Your task to perform on an android device: Play the last video I watched on Youtube Image 0: 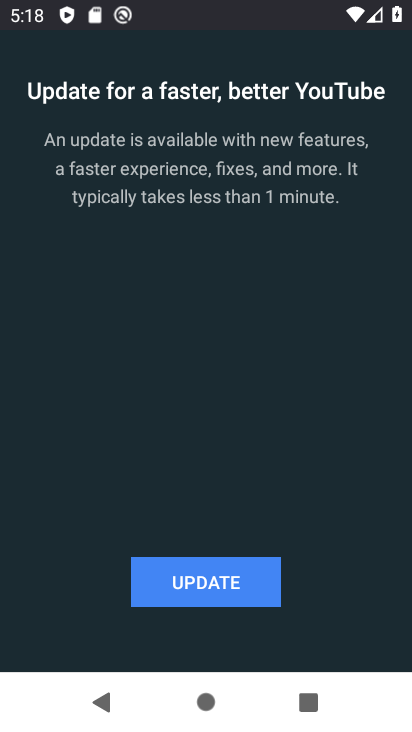
Step 0: press back button
Your task to perform on an android device: Play the last video I watched on Youtube Image 1: 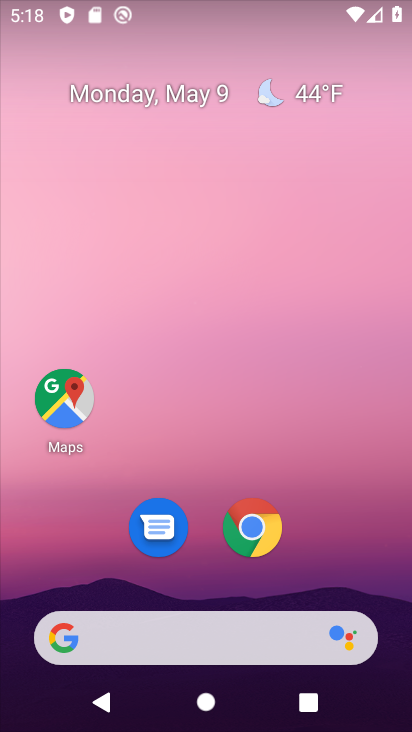
Step 1: drag from (312, 524) to (290, 20)
Your task to perform on an android device: Play the last video I watched on Youtube Image 2: 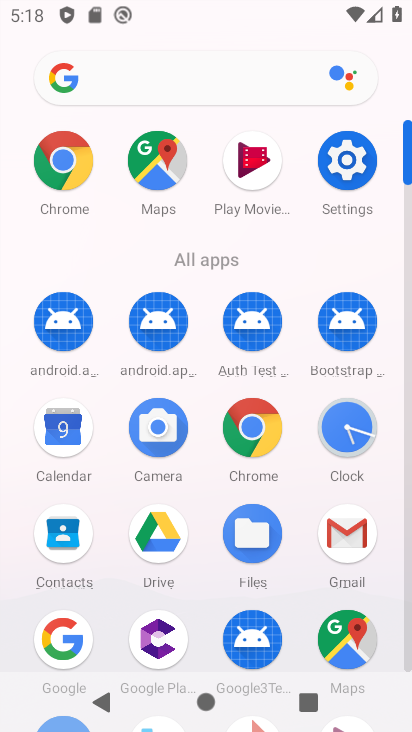
Step 2: drag from (31, 652) to (17, 297)
Your task to perform on an android device: Play the last video I watched on Youtube Image 3: 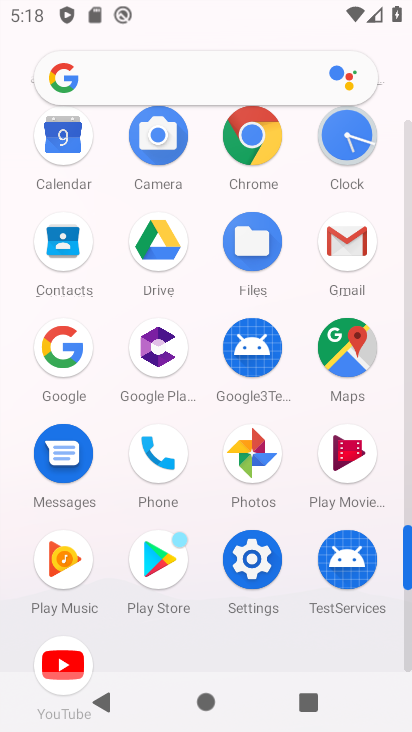
Step 3: click (57, 665)
Your task to perform on an android device: Play the last video I watched on Youtube Image 4: 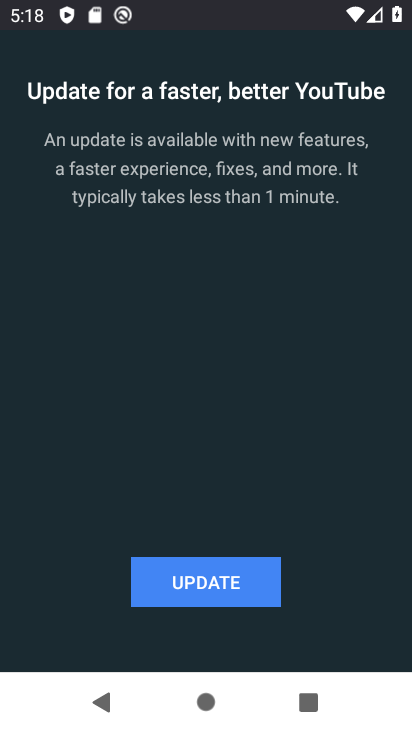
Step 4: click (185, 571)
Your task to perform on an android device: Play the last video I watched on Youtube Image 5: 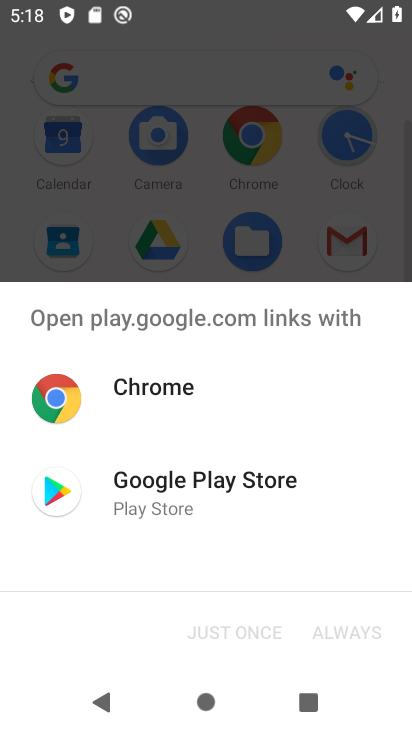
Step 5: click (174, 479)
Your task to perform on an android device: Play the last video I watched on Youtube Image 6: 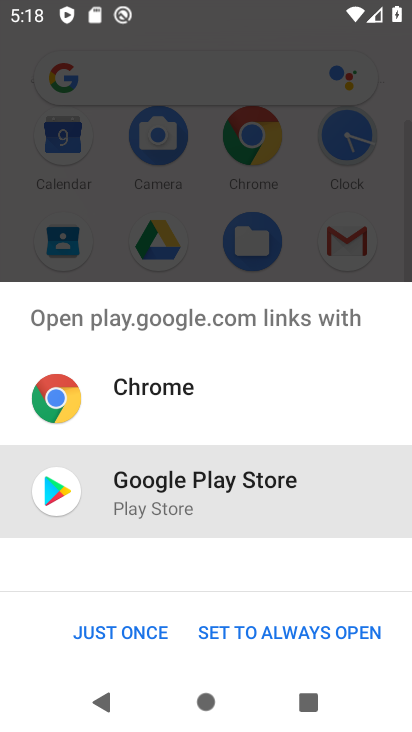
Step 6: click (149, 628)
Your task to perform on an android device: Play the last video I watched on Youtube Image 7: 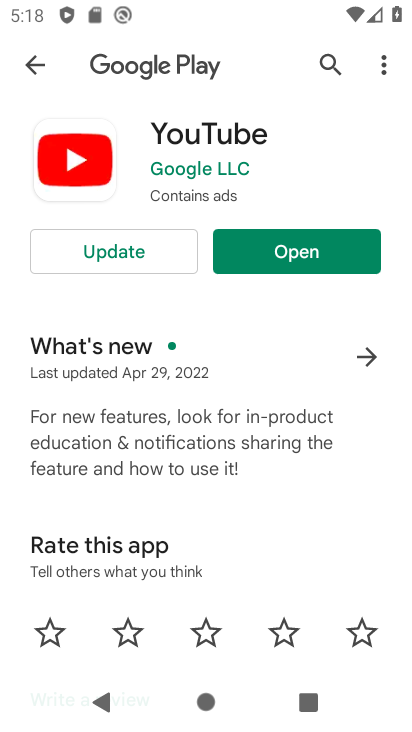
Step 7: click (99, 245)
Your task to perform on an android device: Play the last video I watched on Youtube Image 8: 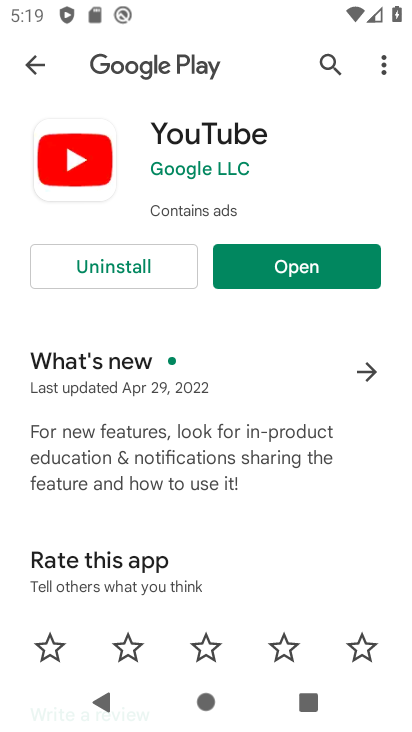
Step 8: click (335, 266)
Your task to perform on an android device: Play the last video I watched on Youtube Image 9: 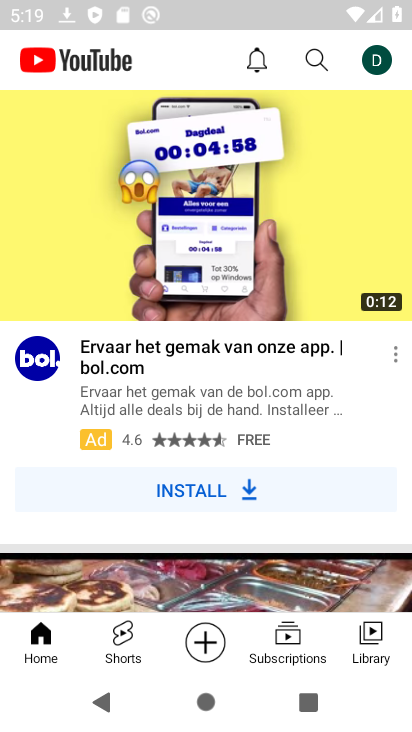
Step 9: drag from (330, 500) to (321, 197)
Your task to perform on an android device: Play the last video I watched on Youtube Image 10: 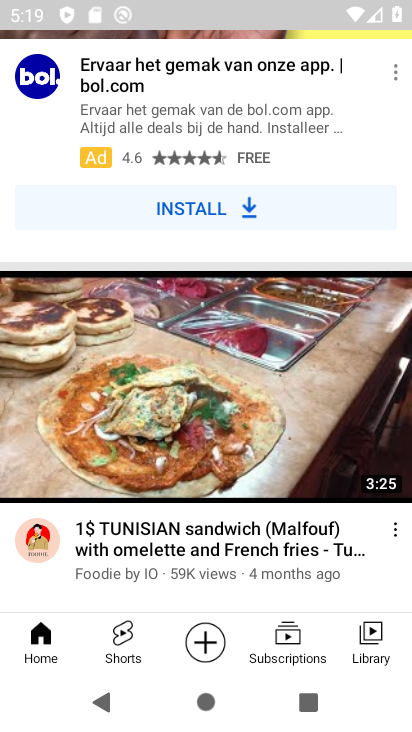
Step 10: click (379, 661)
Your task to perform on an android device: Play the last video I watched on Youtube Image 11: 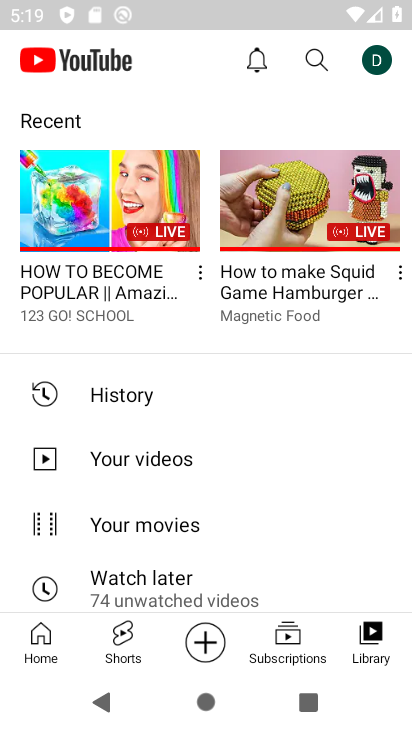
Step 11: click (109, 223)
Your task to perform on an android device: Play the last video I watched on Youtube Image 12: 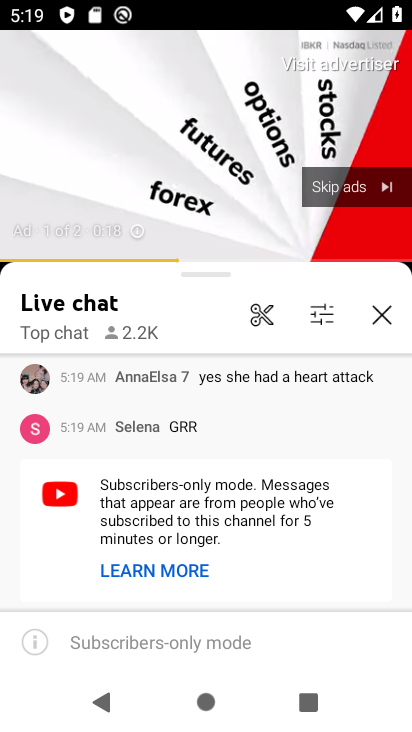
Step 12: click (372, 186)
Your task to perform on an android device: Play the last video I watched on Youtube Image 13: 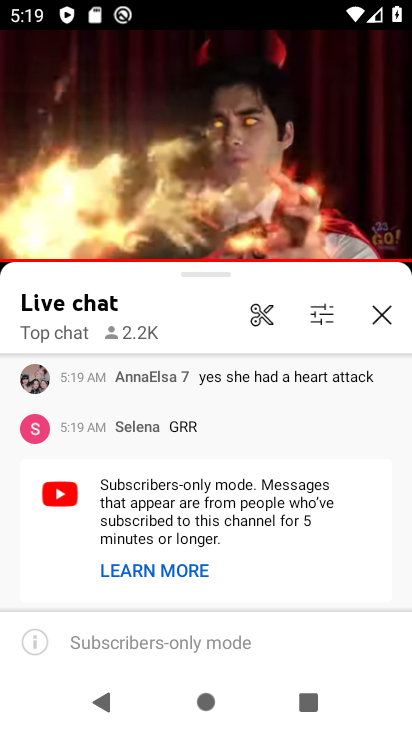
Step 13: task complete